Your task to perform on an android device: check android version Image 0: 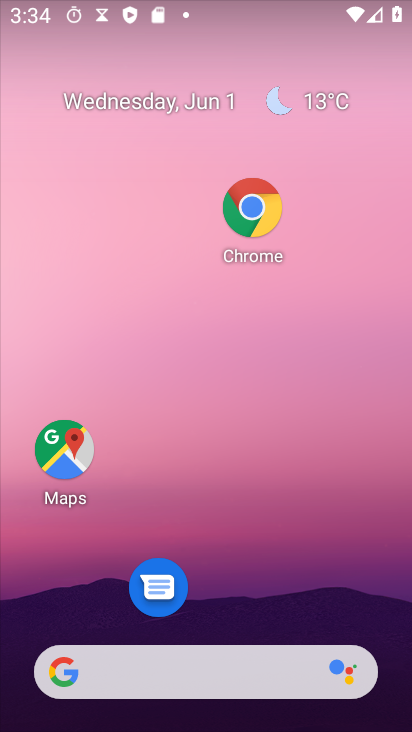
Step 0: drag from (230, 676) to (132, 1)
Your task to perform on an android device: check android version Image 1: 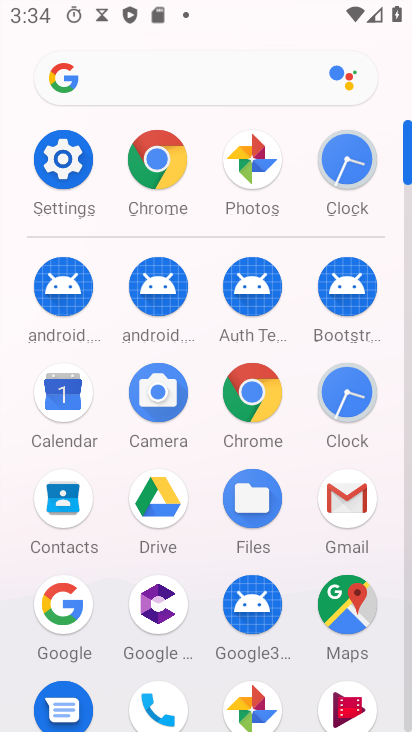
Step 1: drag from (203, 557) to (148, 205)
Your task to perform on an android device: check android version Image 2: 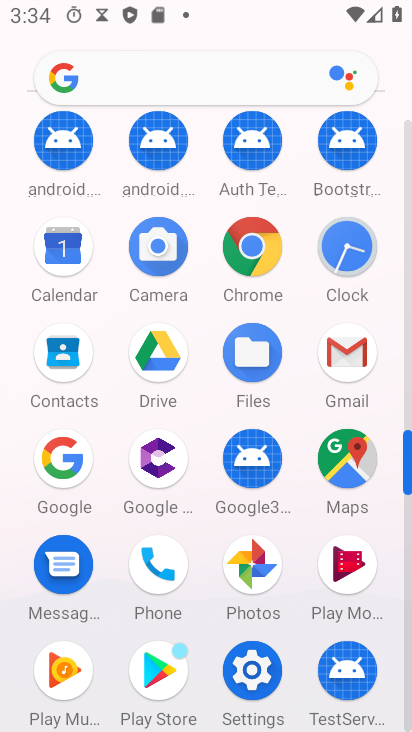
Step 2: drag from (238, 525) to (221, 245)
Your task to perform on an android device: check android version Image 3: 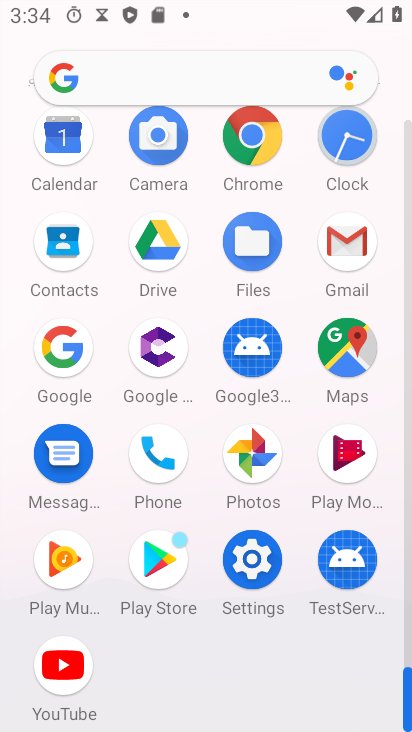
Step 3: click (255, 555)
Your task to perform on an android device: check android version Image 4: 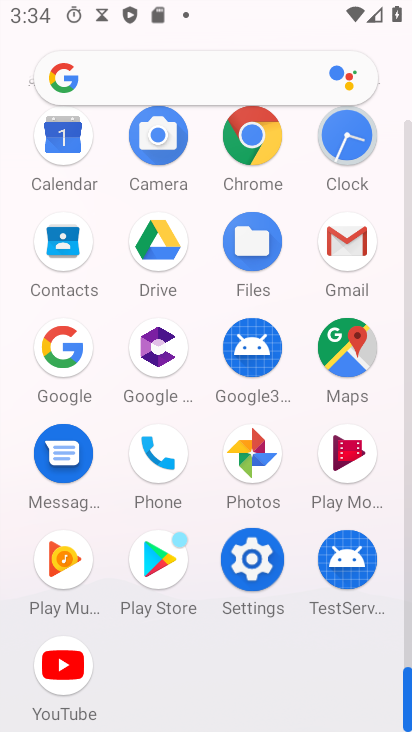
Step 4: click (255, 555)
Your task to perform on an android device: check android version Image 5: 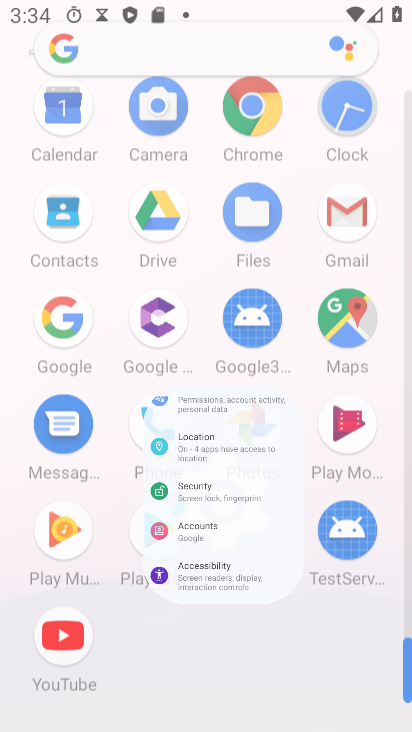
Step 5: click (255, 555)
Your task to perform on an android device: check android version Image 6: 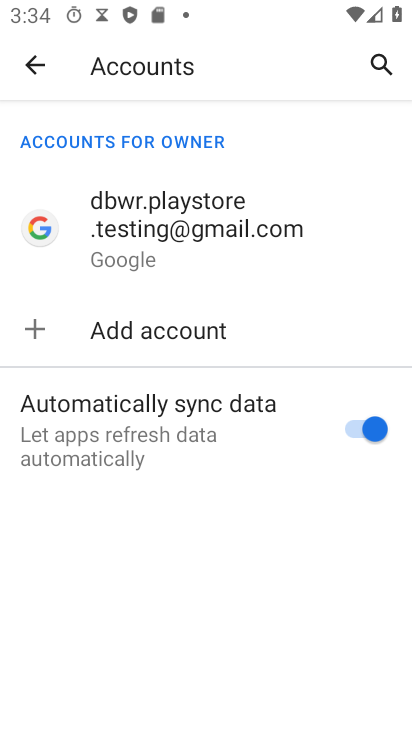
Step 6: click (34, 57)
Your task to perform on an android device: check android version Image 7: 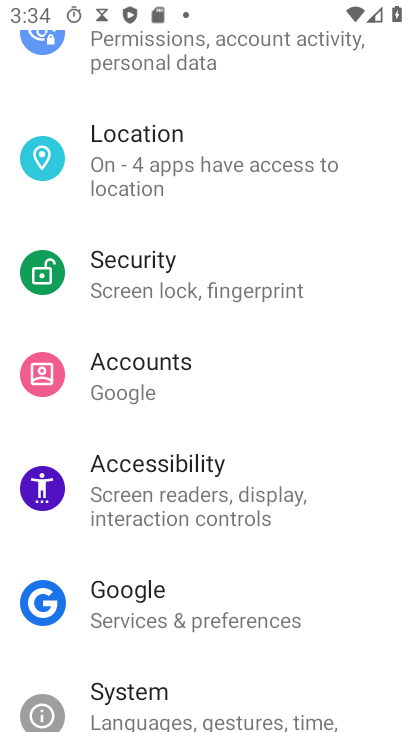
Step 7: drag from (140, 543) to (137, 106)
Your task to perform on an android device: check android version Image 8: 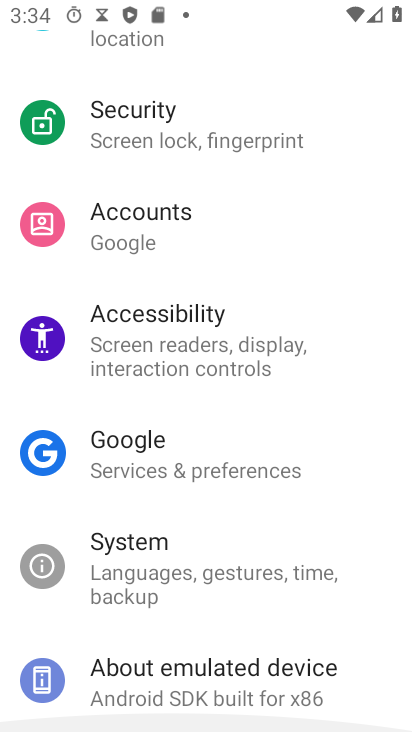
Step 8: drag from (190, 461) to (185, 128)
Your task to perform on an android device: check android version Image 9: 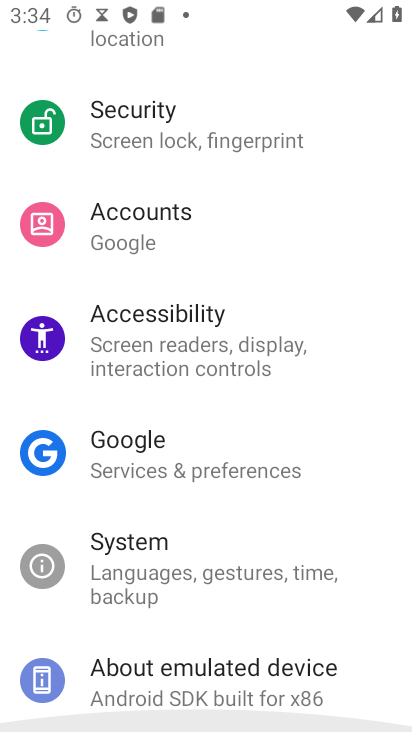
Step 9: drag from (204, 653) to (121, 242)
Your task to perform on an android device: check android version Image 10: 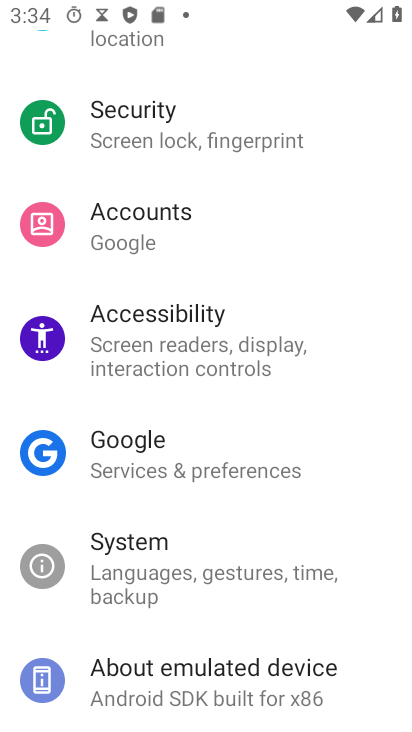
Step 10: click (186, 696)
Your task to perform on an android device: check android version Image 11: 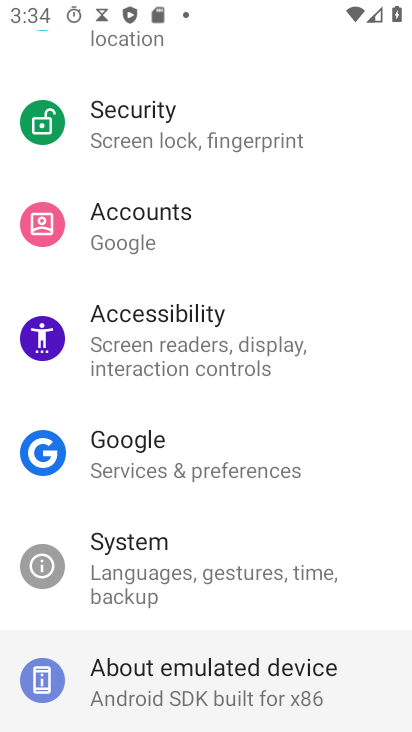
Step 11: click (186, 696)
Your task to perform on an android device: check android version Image 12: 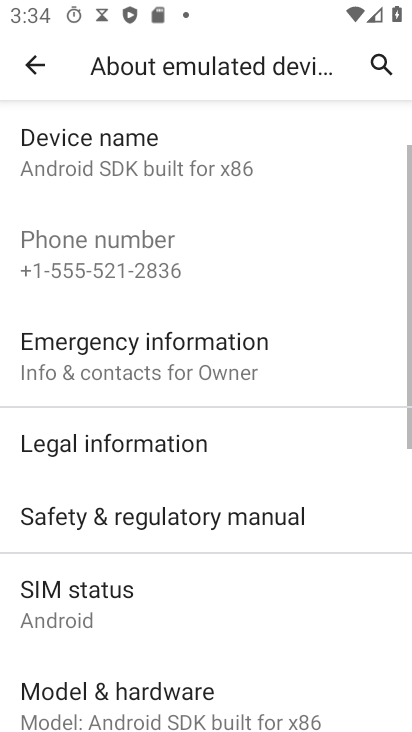
Step 12: task complete